Your task to perform on an android device: search for starred emails in the gmail app Image 0: 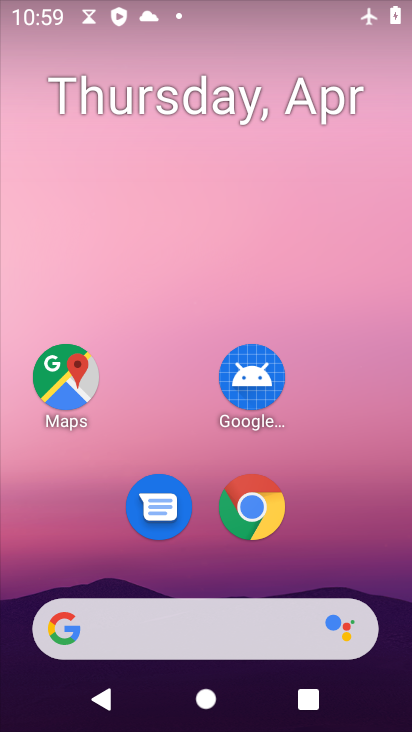
Step 0: drag from (303, 304) to (282, 188)
Your task to perform on an android device: search for starred emails in the gmail app Image 1: 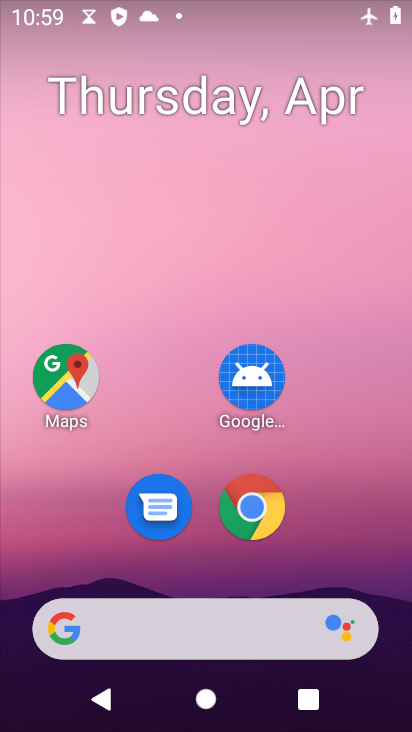
Step 1: drag from (309, 579) to (328, 193)
Your task to perform on an android device: search for starred emails in the gmail app Image 2: 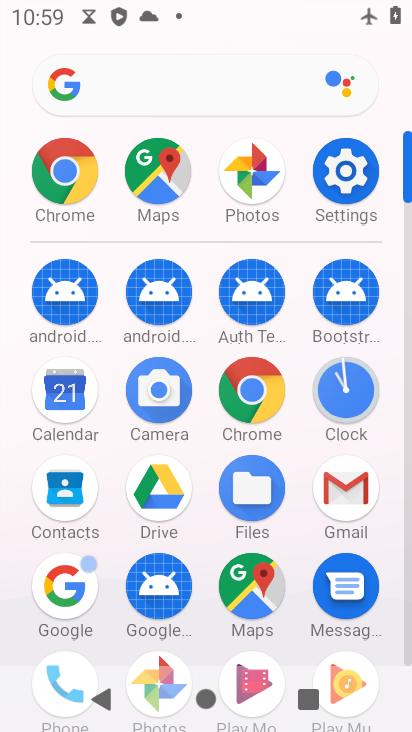
Step 2: click (330, 489)
Your task to perform on an android device: search for starred emails in the gmail app Image 3: 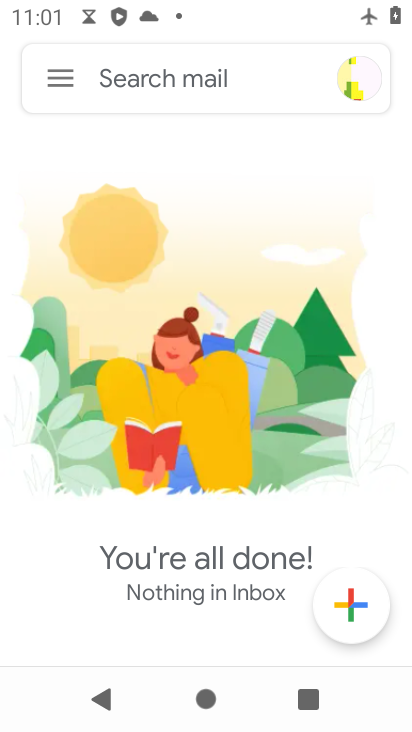
Step 3: click (50, 62)
Your task to perform on an android device: search for starred emails in the gmail app Image 4: 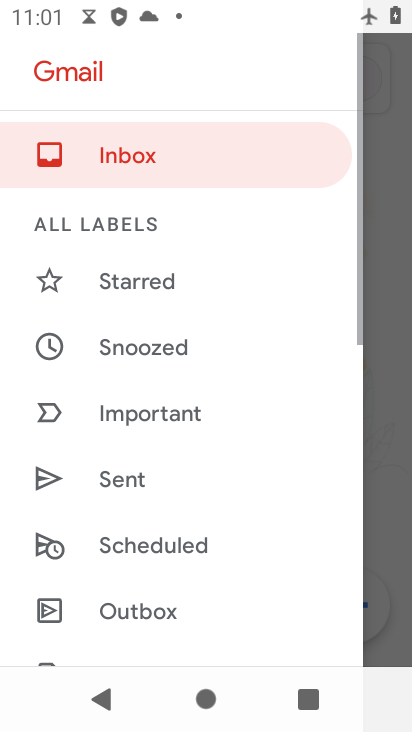
Step 4: click (133, 289)
Your task to perform on an android device: search for starred emails in the gmail app Image 5: 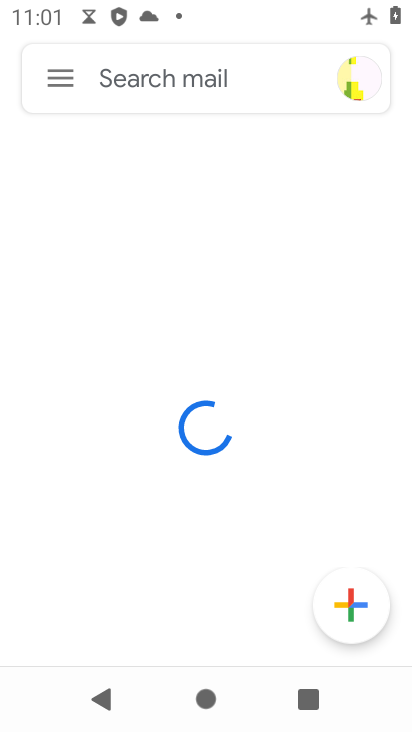
Step 5: task complete